Your task to perform on an android device: set an alarm Image 0: 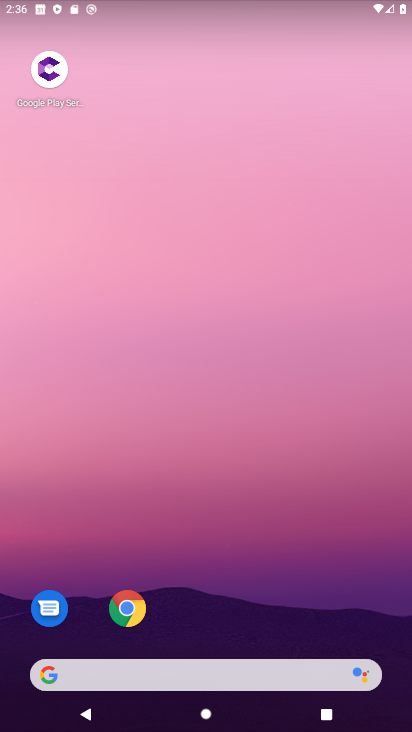
Step 0: drag from (204, 620) to (234, 259)
Your task to perform on an android device: set an alarm Image 1: 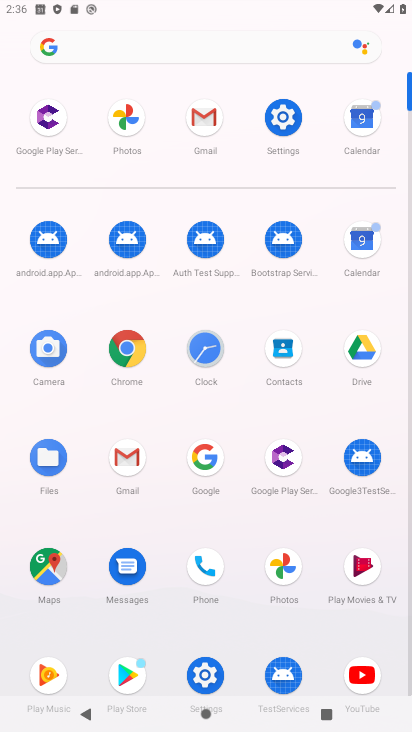
Step 1: click (200, 356)
Your task to perform on an android device: set an alarm Image 2: 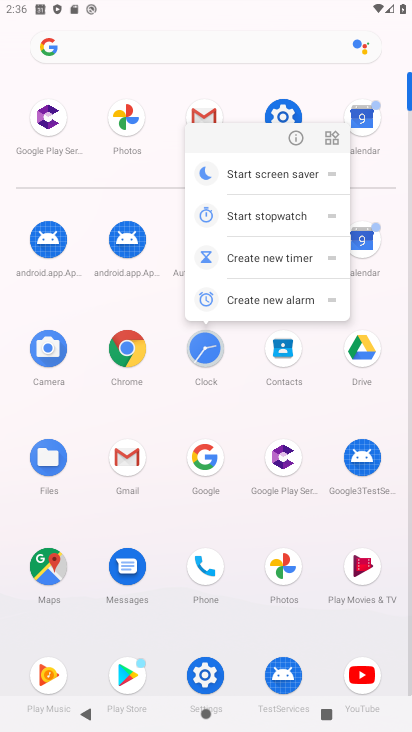
Step 2: click (205, 352)
Your task to perform on an android device: set an alarm Image 3: 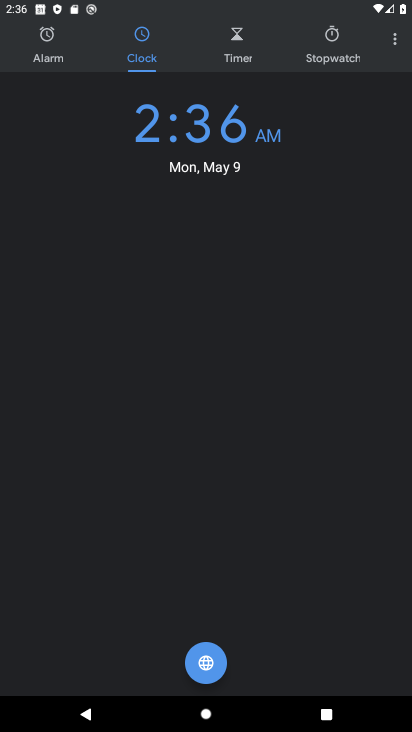
Step 3: click (37, 44)
Your task to perform on an android device: set an alarm Image 4: 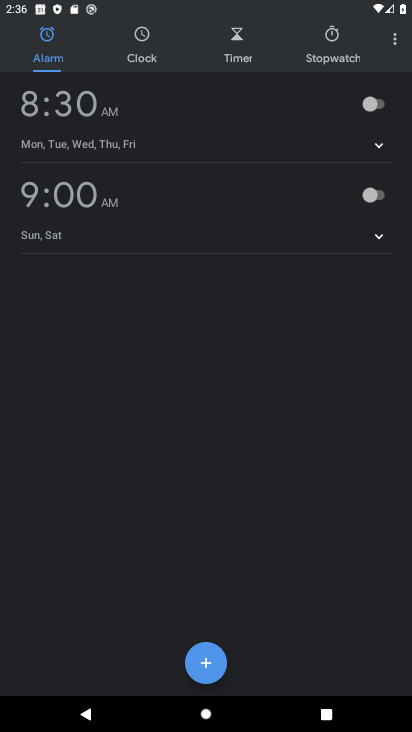
Step 4: click (384, 115)
Your task to perform on an android device: set an alarm Image 5: 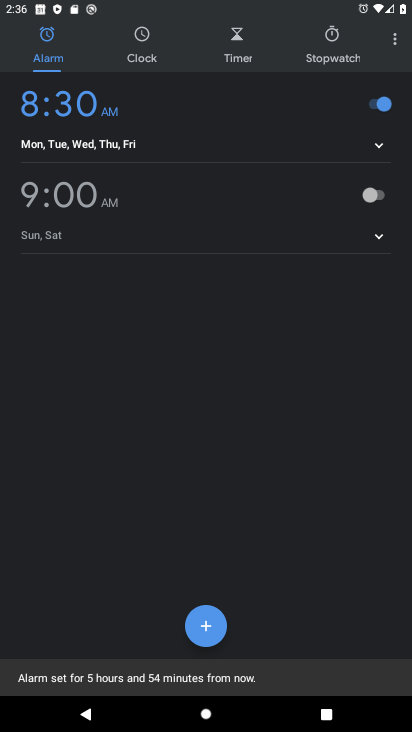
Step 5: task complete